Your task to perform on an android device: toggle wifi Image 0: 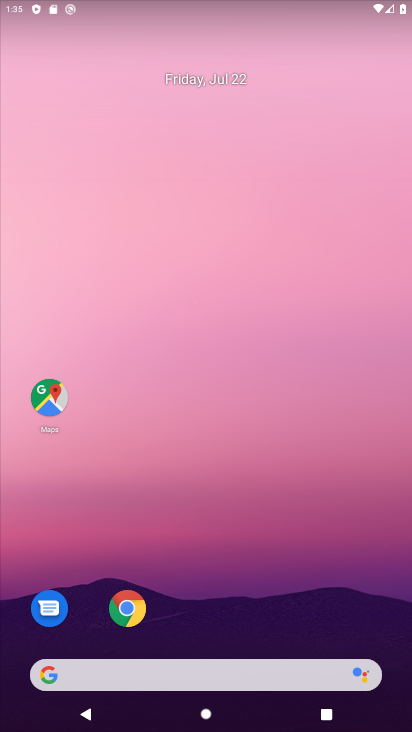
Step 0: drag from (402, 695) to (342, 109)
Your task to perform on an android device: toggle wifi Image 1: 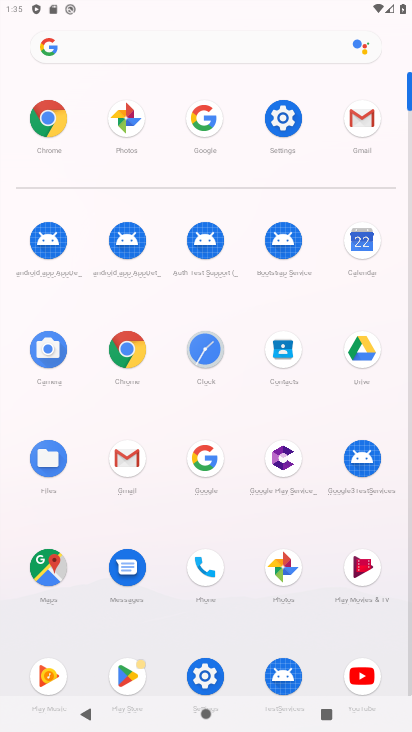
Step 1: click (286, 114)
Your task to perform on an android device: toggle wifi Image 2: 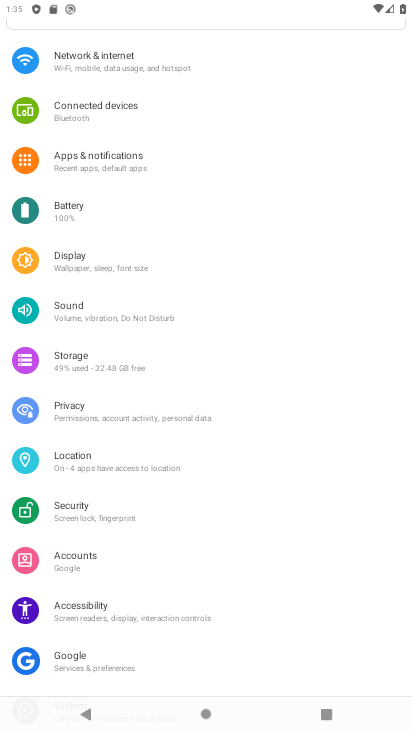
Step 2: click (90, 66)
Your task to perform on an android device: toggle wifi Image 3: 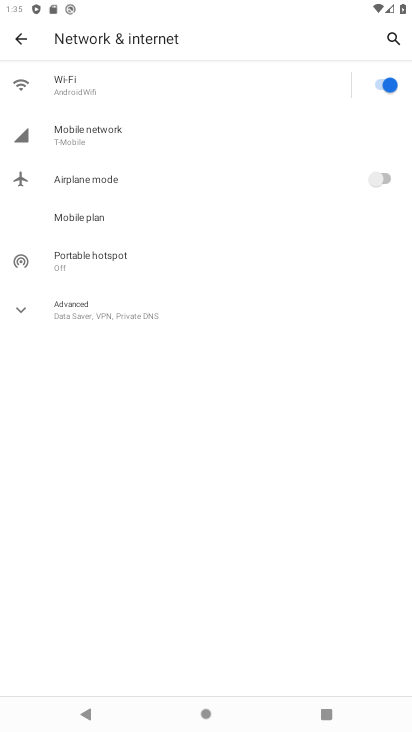
Step 3: click (376, 80)
Your task to perform on an android device: toggle wifi Image 4: 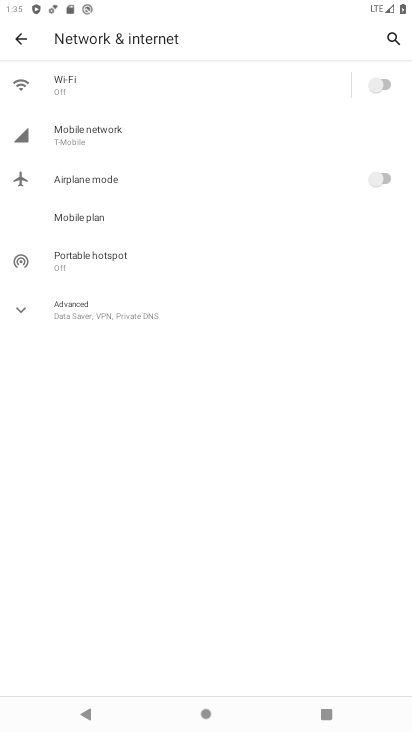
Step 4: task complete